Your task to perform on an android device: Open Chrome and go to settings Image 0: 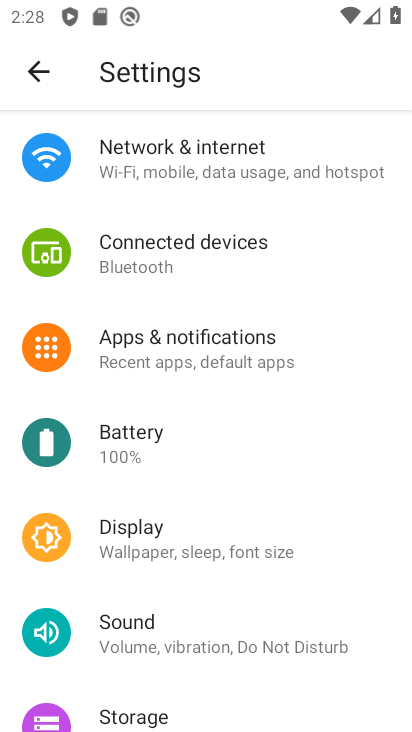
Step 0: press back button
Your task to perform on an android device: Open Chrome and go to settings Image 1: 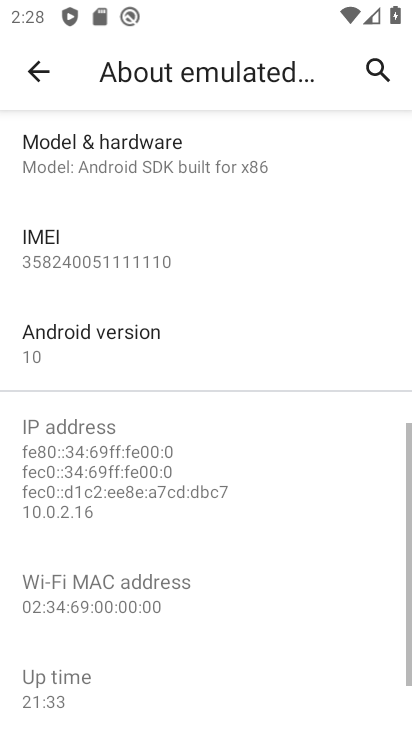
Step 1: press back button
Your task to perform on an android device: Open Chrome and go to settings Image 2: 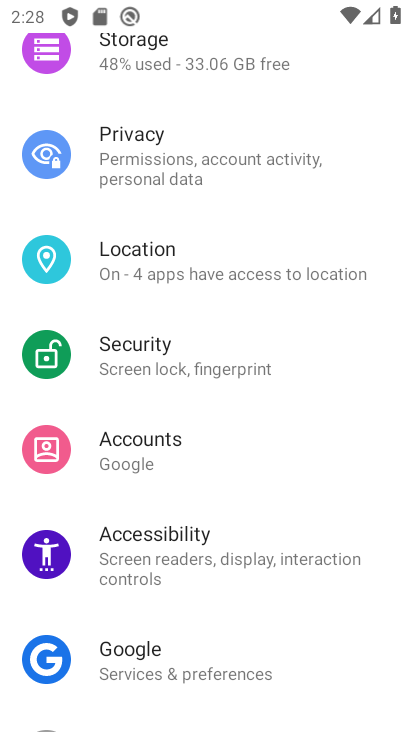
Step 2: press home button
Your task to perform on an android device: Open Chrome and go to settings Image 3: 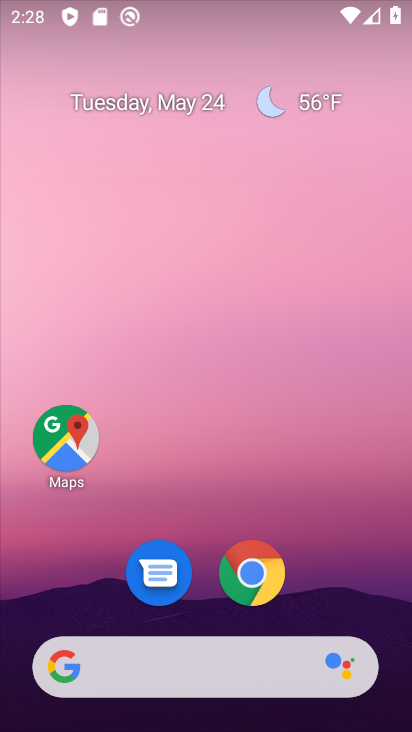
Step 3: drag from (306, 536) to (242, 52)
Your task to perform on an android device: Open Chrome and go to settings Image 4: 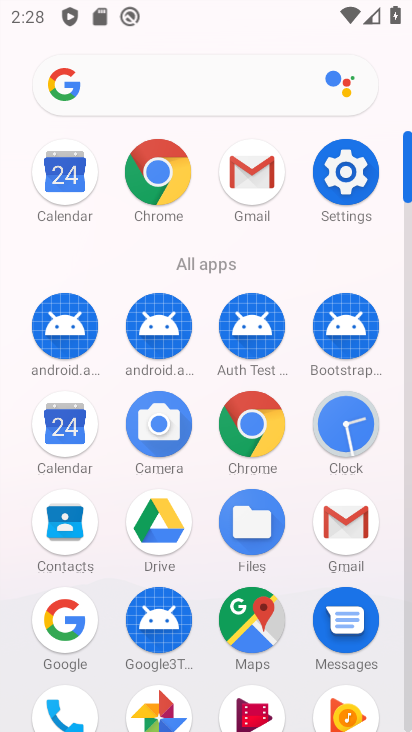
Step 4: click (153, 164)
Your task to perform on an android device: Open Chrome and go to settings Image 5: 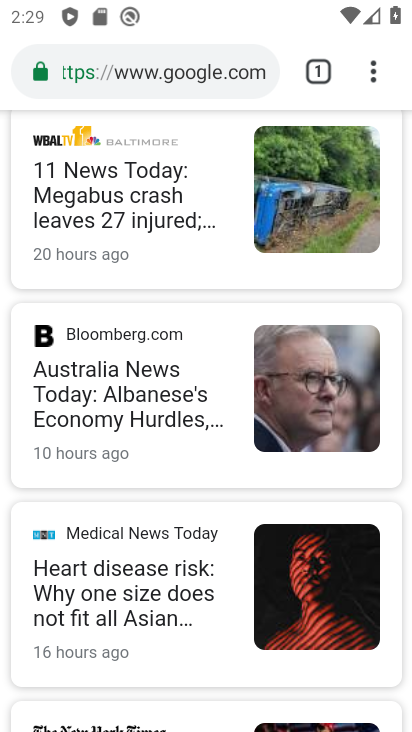
Step 5: task complete